Your task to perform on an android device: Open Youtube and go to "Your channel" Image 0: 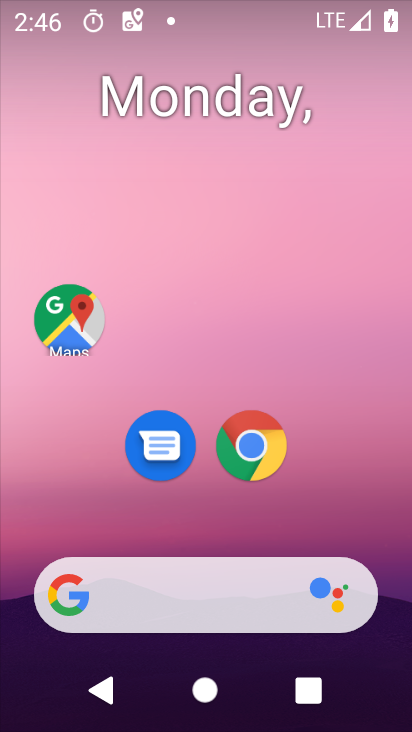
Step 0: drag from (220, 557) to (165, 1)
Your task to perform on an android device: Open Youtube and go to "Your channel" Image 1: 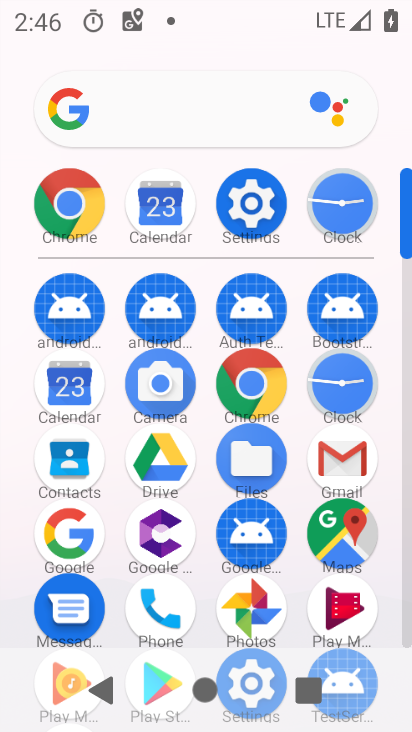
Step 1: drag from (223, 592) to (229, 162)
Your task to perform on an android device: Open Youtube and go to "Your channel" Image 2: 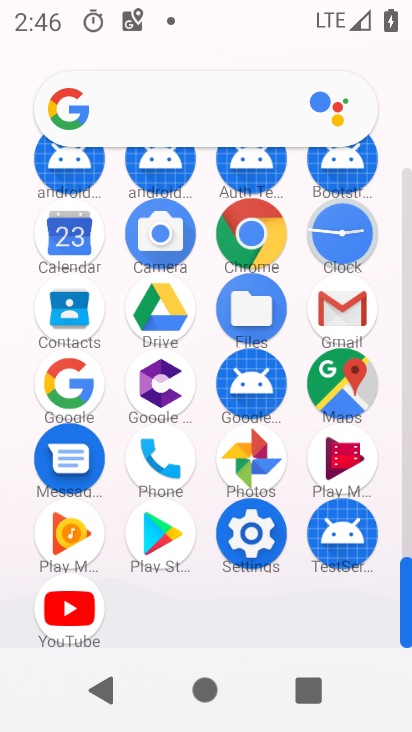
Step 2: click (93, 604)
Your task to perform on an android device: Open Youtube and go to "Your channel" Image 3: 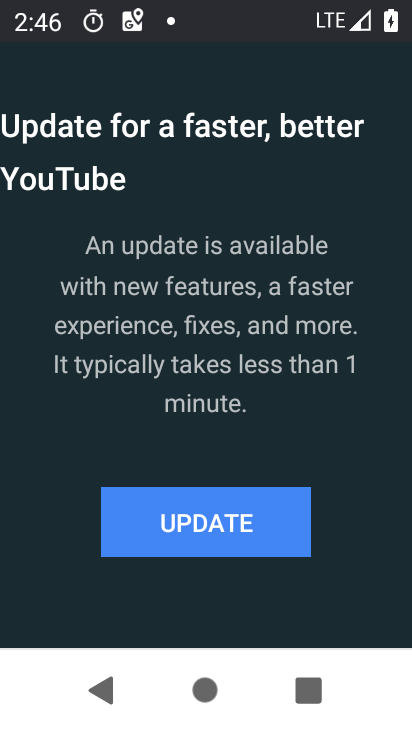
Step 3: click (165, 515)
Your task to perform on an android device: Open Youtube and go to "Your channel" Image 4: 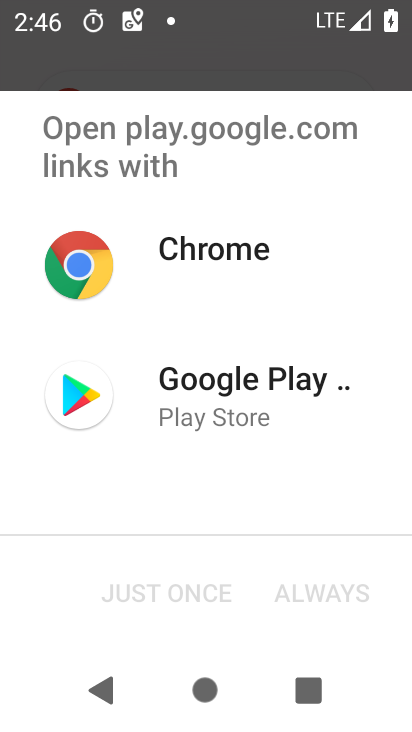
Step 4: click (186, 343)
Your task to perform on an android device: Open Youtube and go to "Your channel" Image 5: 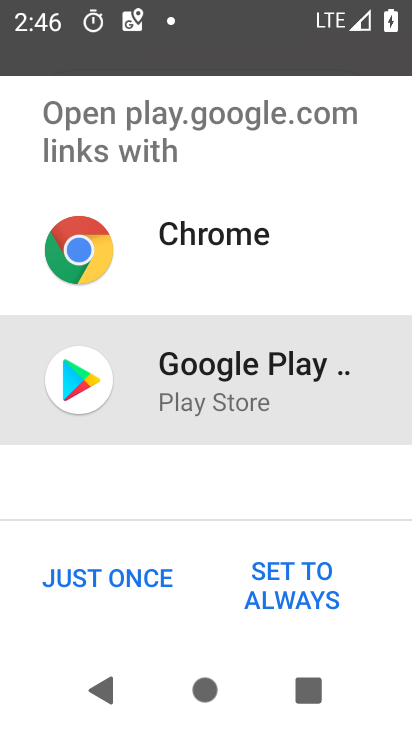
Step 5: click (97, 585)
Your task to perform on an android device: Open Youtube and go to "Your channel" Image 6: 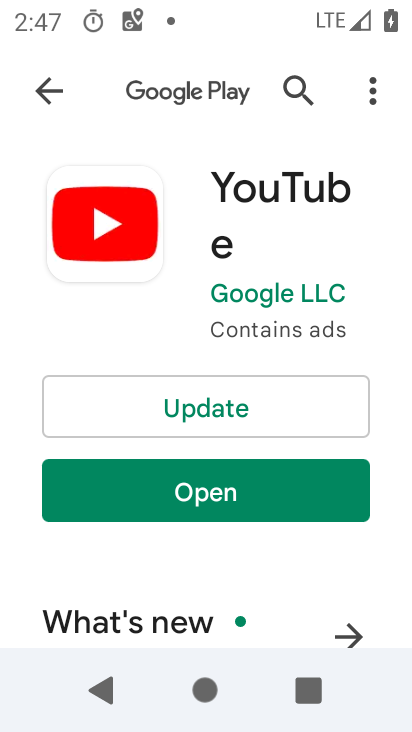
Step 6: click (188, 424)
Your task to perform on an android device: Open Youtube and go to "Your channel" Image 7: 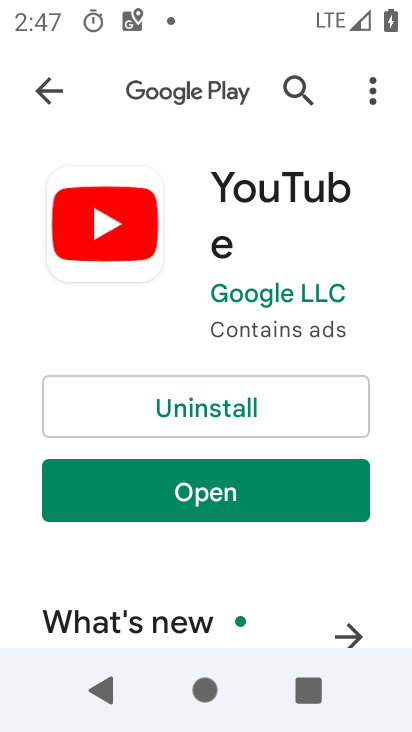
Step 7: click (273, 502)
Your task to perform on an android device: Open Youtube and go to "Your channel" Image 8: 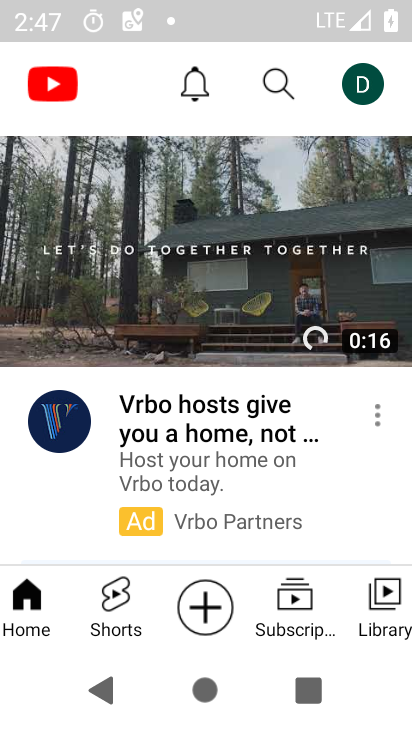
Step 8: click (366, 88)
Your task to perform on an android device: Open Youtube and go to "Your channel" Image 9: 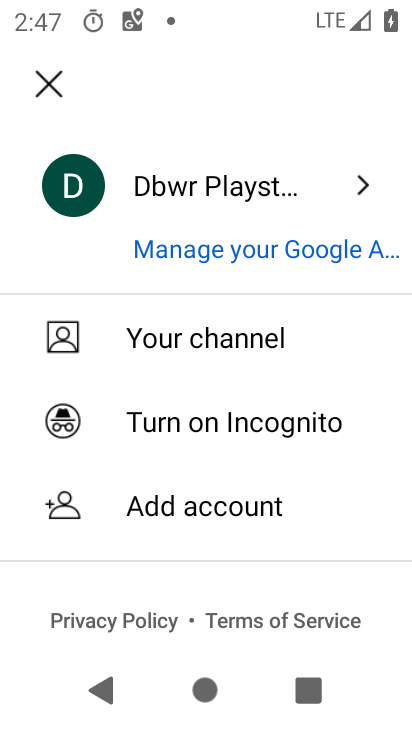
Step 9: click (201, 342)
Your task to perform on an android device: Open Youtube and go to "Your channel" Image 10: 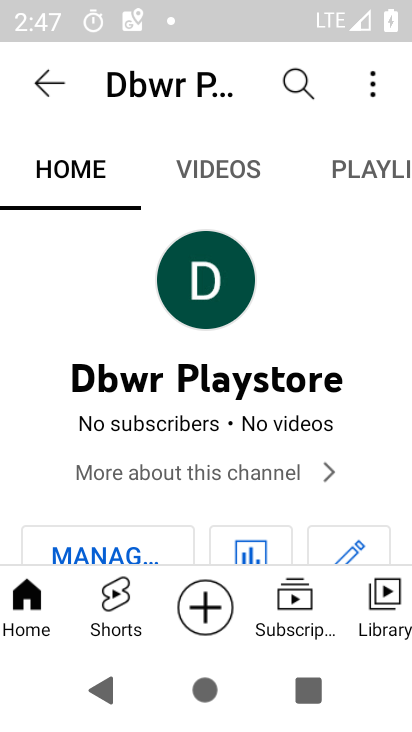
Step 10: task complete